Your task to perform on an android device: add a contact in the contacts app Image 0: 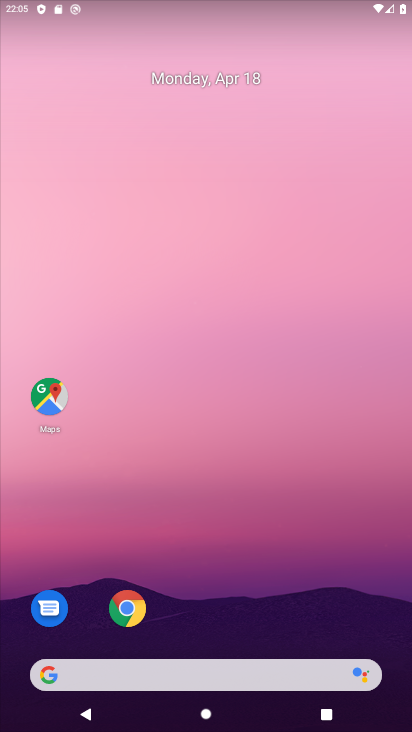
Step 0: drag from (234, 583) to (211, 191)
Your task to perform on an android device: add a contact in the contacts app Image 1: 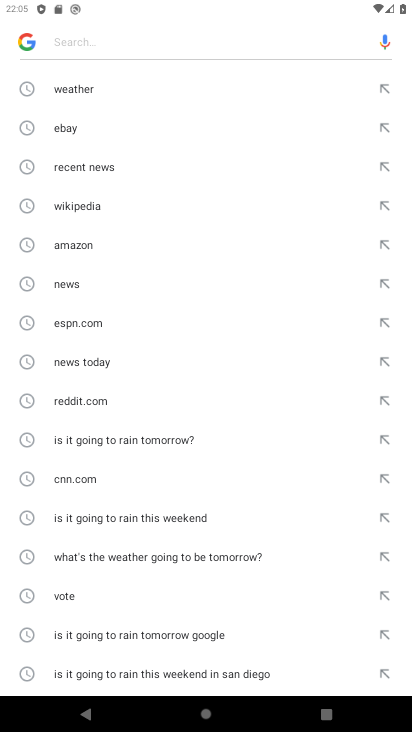
Step 1: press home button
Your task to perform on an android device: add a contact in the contacts app Image 2: 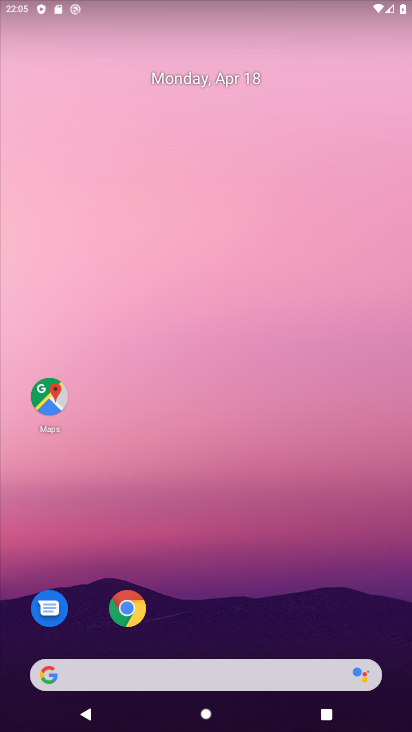
Step 2: drag from (228, 568) to (251, 174)
Your task to perform on an android device: add a contact in the contacts app Image 3: 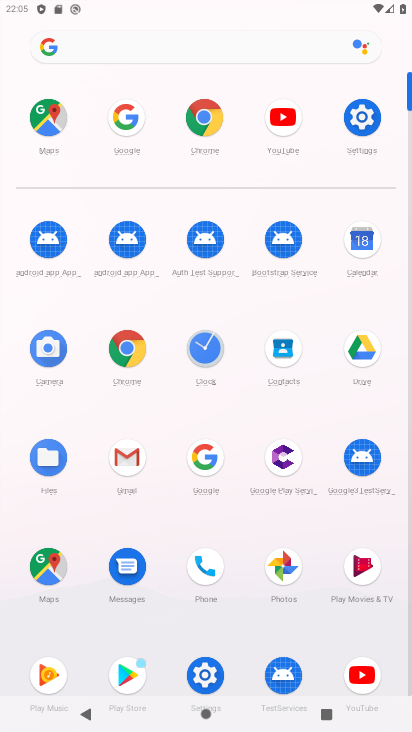
Step 3: click (278, 348)
Your task to perform on an android device: add a contact in the contacts app Image 4: 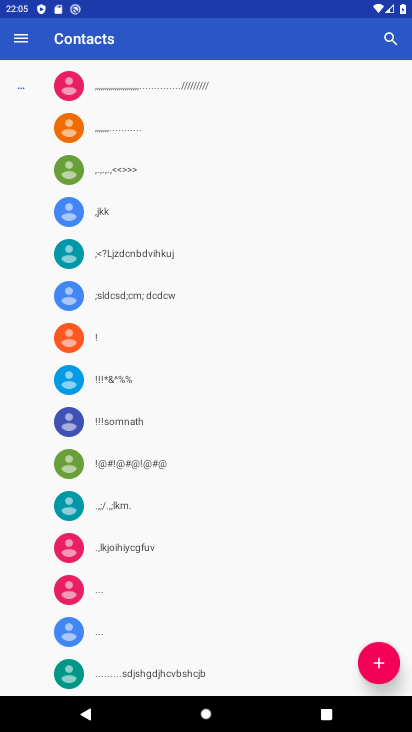
Step 4: click (381, 656)
Your task to perform on an android device: add a contact in the contacts app Image 5: 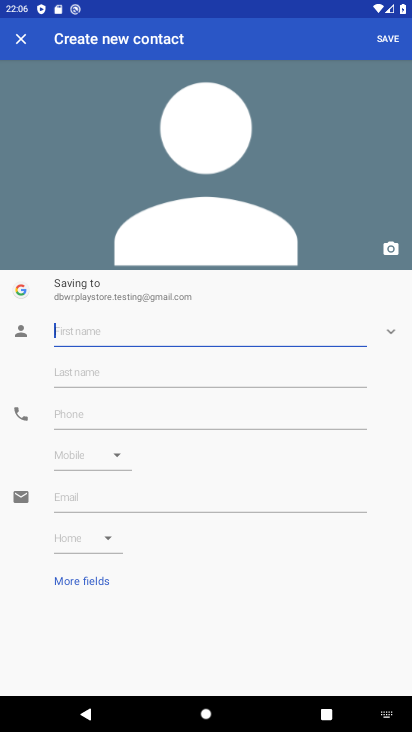
Step 5: type "kuhfeskjf"
Your task to perform on an android device: add a contact in the contacts app Image 6: 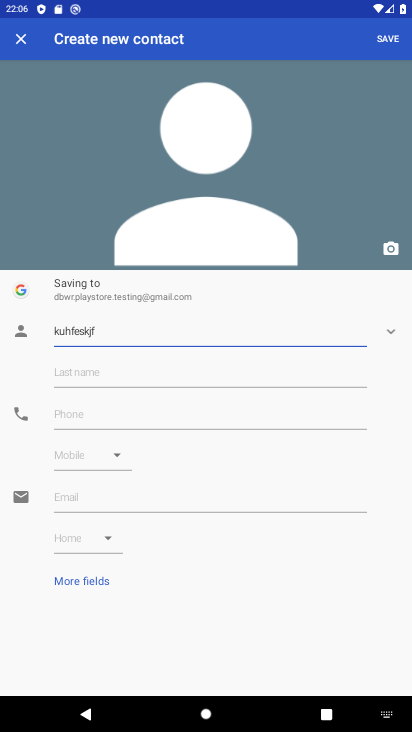
Step 6: click (381, 43)
Your task to perform on an android device: add a contact in the contacts app Image 7: 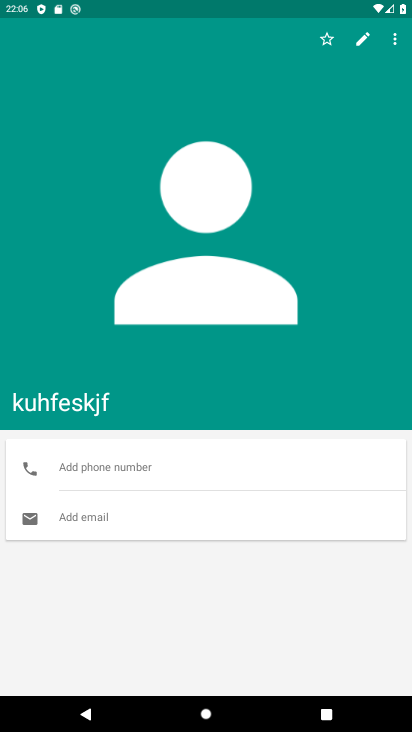
Step 7: task complete